Your task to perform on an android device: uninstall "Roku - Official Remote Control" Image 0: 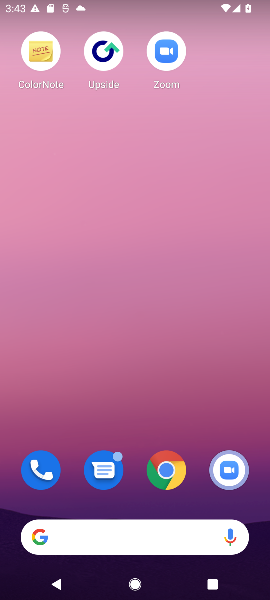
Step 0: drag from (159, 537) to (151, 53)
Your task to perform on an android device: uninstall "Roku - Official Remote Control" Image 1: 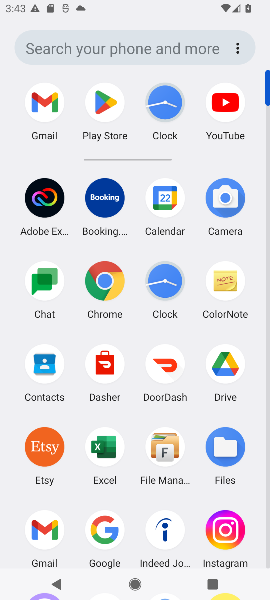
Step 1: click (106, 98)
Your task to perform on an android device: uninstall "Roku - Official Remote Control" Image 2: 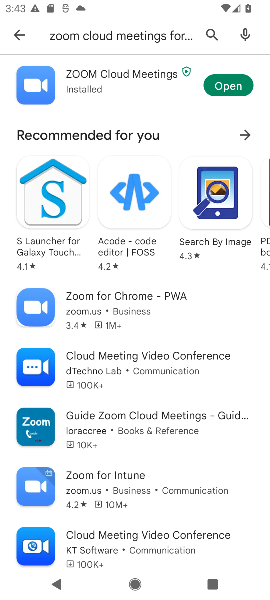
Step 2: click (28, 33)
Your task to perform on an android device: uninstall "Roku - Official Remote Control" Image 3: 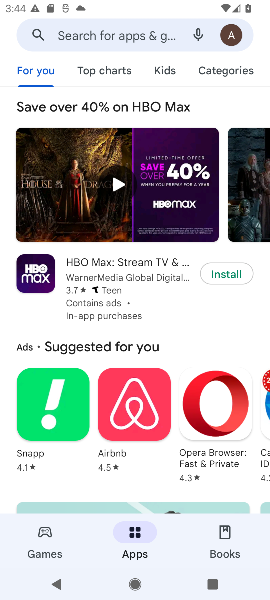
Step 3: click (97, 33)
Your task to perform on an android device: uninstall "Roku - Official Remote Control" Image 4: 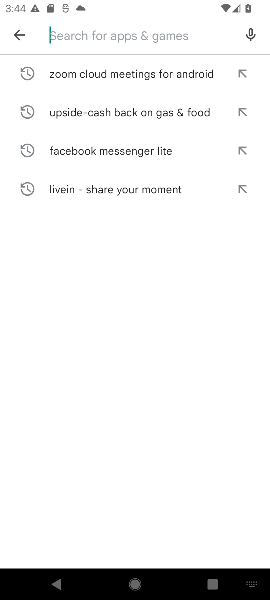
Step 4: type "Roku  "
Your task to perform on an android device: uninstall "Roku - Official Remote Control" Image 5: 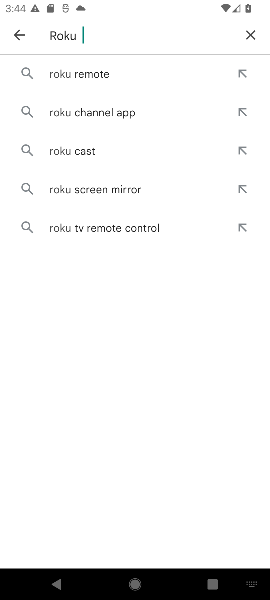
Step 5: click (105, 72)
Your task to perform on an android device: uninstall "Roku - Official Remote Control" Image 6: 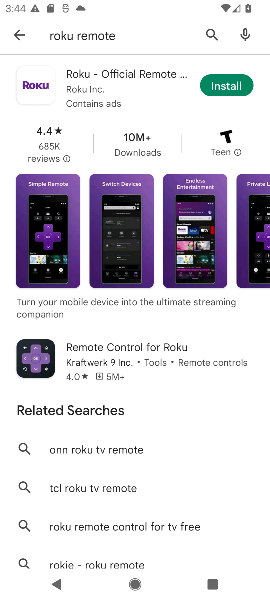
Step 6: click (138, 73)
Your task to perform on an android device: uninstall "Roku - Official Remote Control" Image 7: 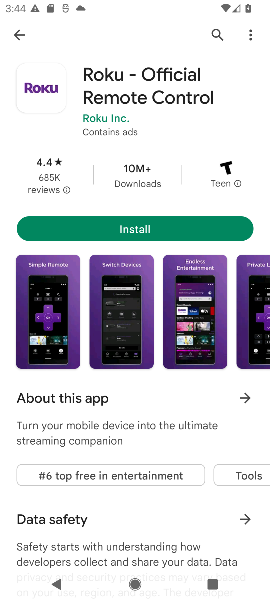
Step 7: task complete